Your task to perform on an android device: See recent photos Image 0: 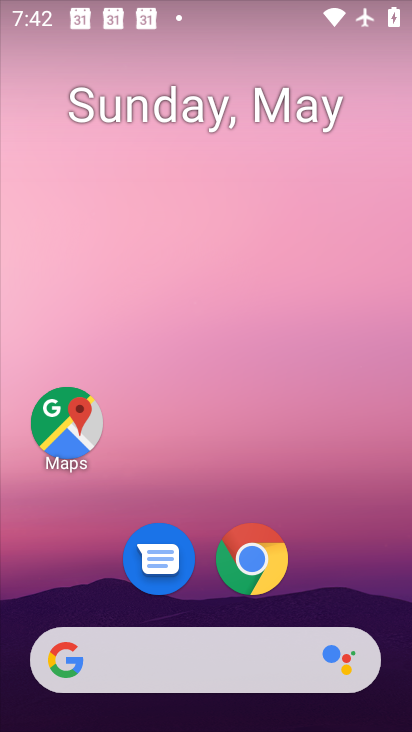
Step 0: drag from (198, 659) to (300, 119)
Your task to perform on an android device: See recent photos Image 1: 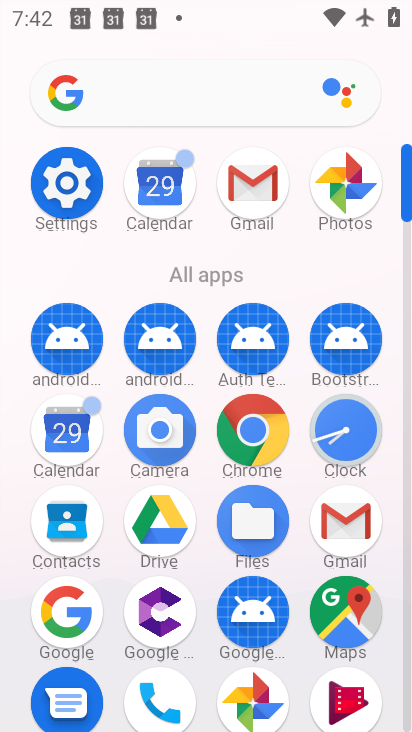
Step 1: click (346, 180)
Your task to perform on an android device: See recent photos Image 2: 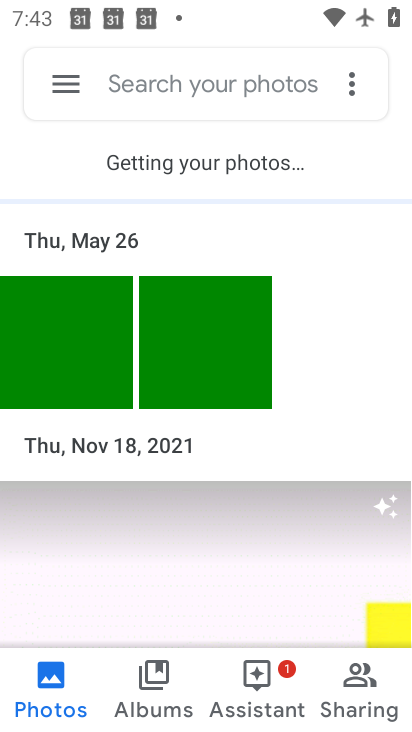
Step 2: task complete